Your task to perform on an android device: check android version Image 0: 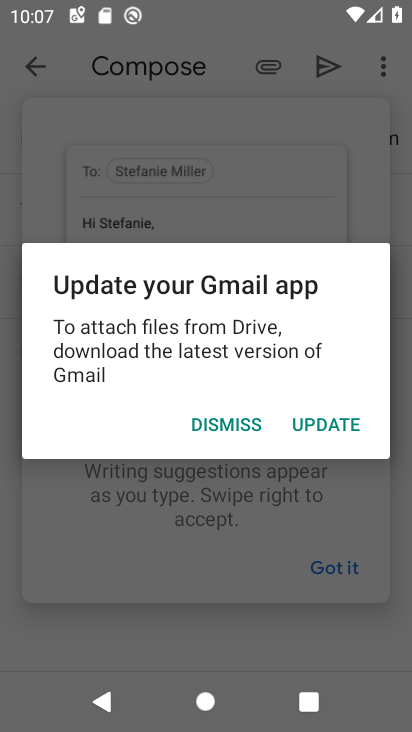
Step 0: press home button
Your task to perform on an android device: check android version Image 1: 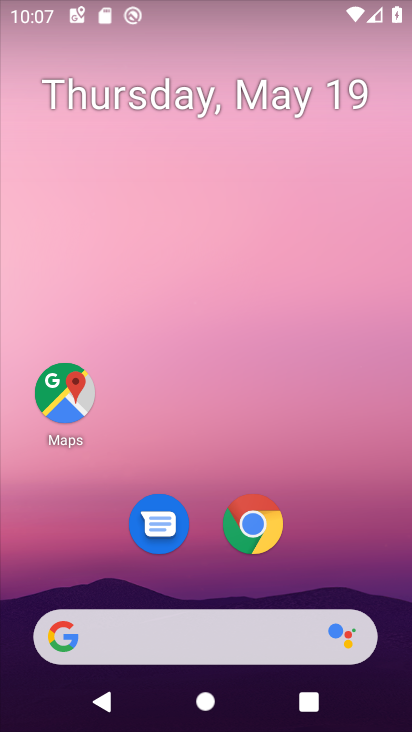
Step 1: drag from (319, 464) to (354, 36)
Your task to perform on an android device: check android version Image 2: 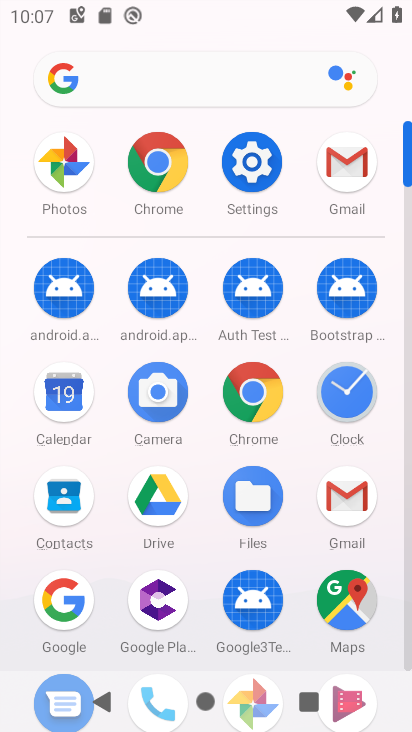
Step 2: click (271, 148)
Your task to perform on an android device: check android version Image 3: 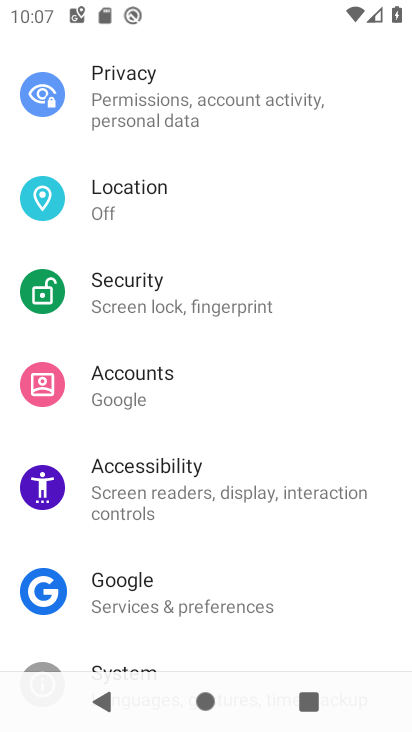
Step 3: drag from (197, 418) to (243, 69)
Your task to perform on an android device: check android version Image 4: 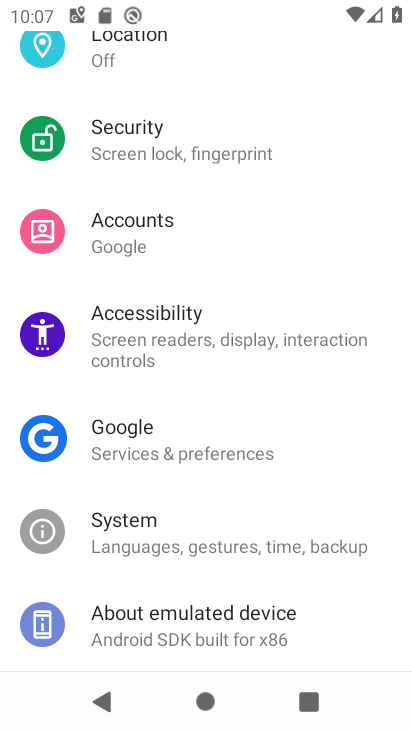
Step 4: click (212, 627)
Your task to perform on an android device: check android version Image 5: 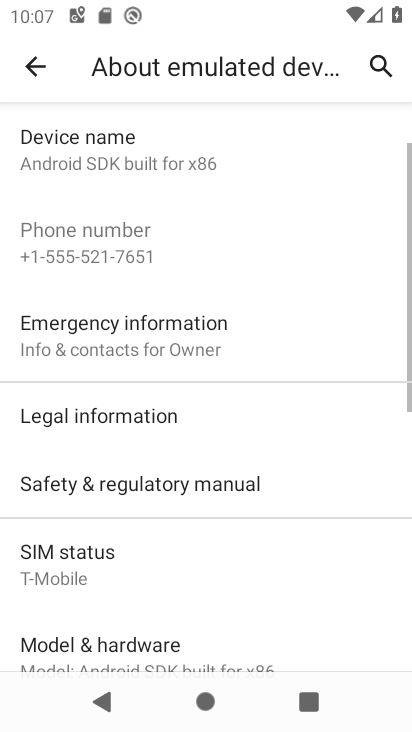
Step 5: drag from (219, 582) to (312, 182)
Your task to perform on an android device: check android version Image 6: 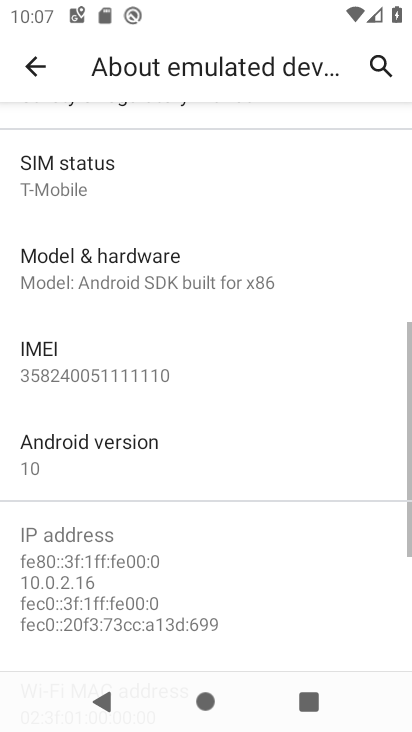
Step 6: click (126, 446)
Your task to perform on an android device: check android version Image 7: 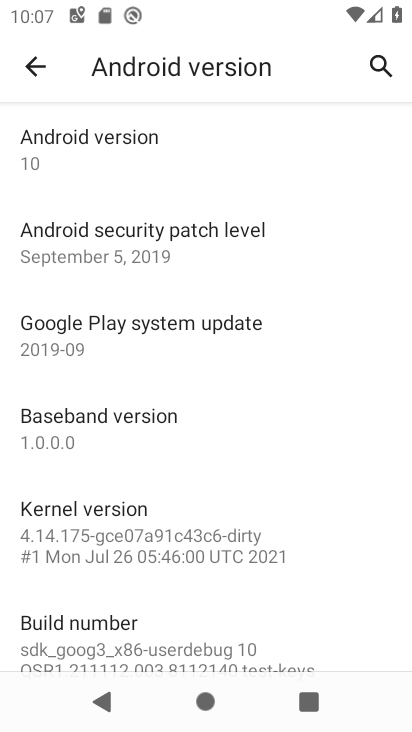
Step 7: task complete